Your task to perform on an android device: Open privacy settings Image 0: 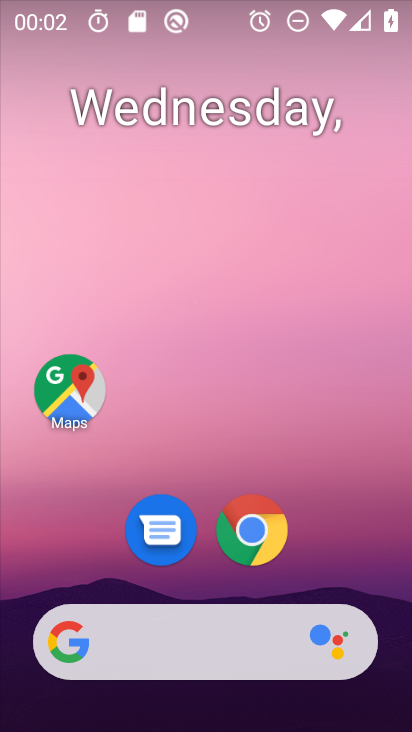
Step 0: drag from (376, 548) to (322, 155)
Your task to perform on an android device: Open privacy settings Image 1: 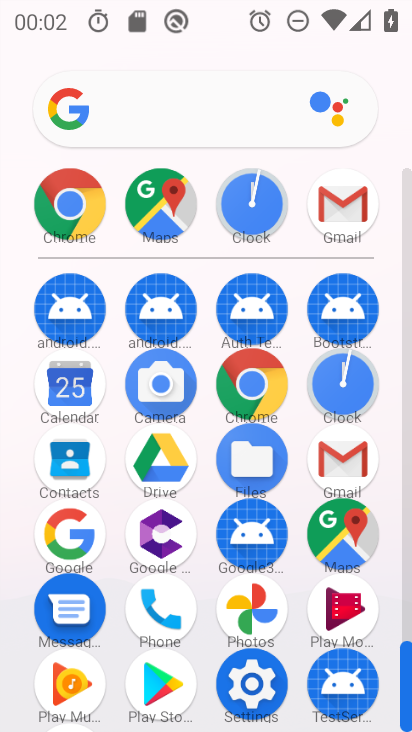
Step 1: click (255, 674)
Your task to perform on an android device: Open privacy settings Image 2: 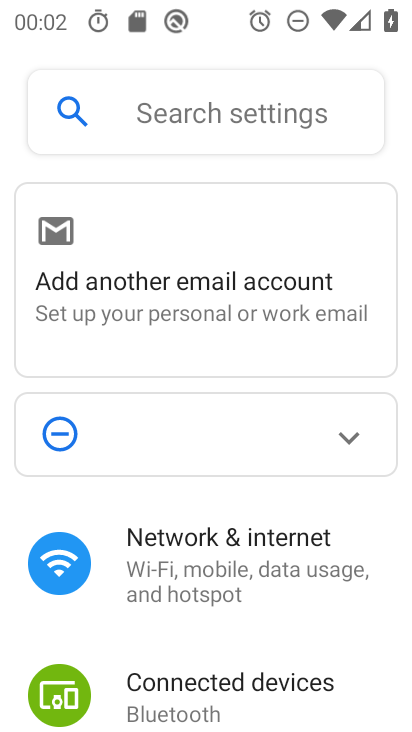
Step 2: drag from (288, 601) to (290, 28)
Your task to perform on an android device: Open privacy settings Image 3: 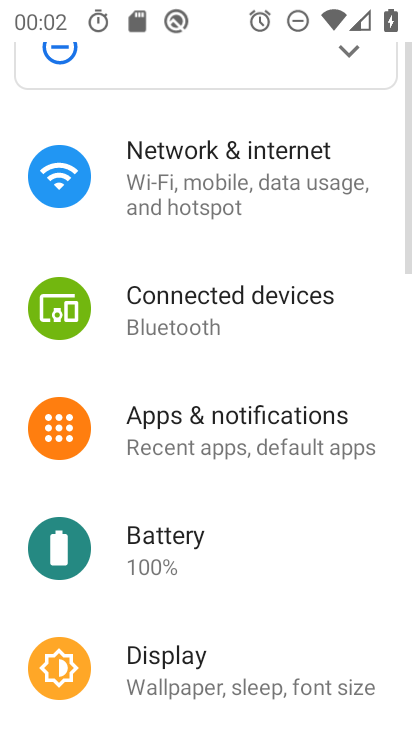
Step 3: drag from (240, 588) to (287, 5)
Your task to perform on an android device: Open privacy settings Image 4: 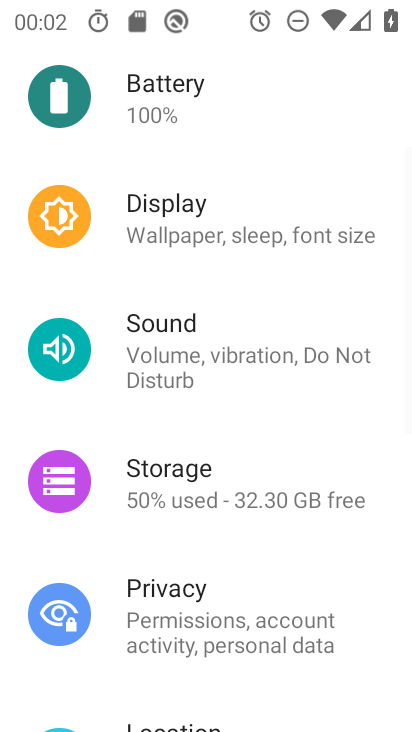
Step 4: drag from (229, 454) to (282, 63)
Your task to perform on an android device: Open privacy settings Image 5: 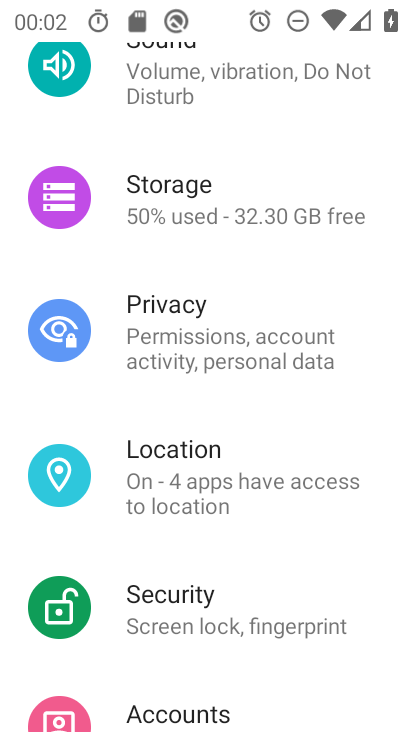
Step 5: click (214, 351)
Your task to perform on an android device: Open privacy settings Image 6: 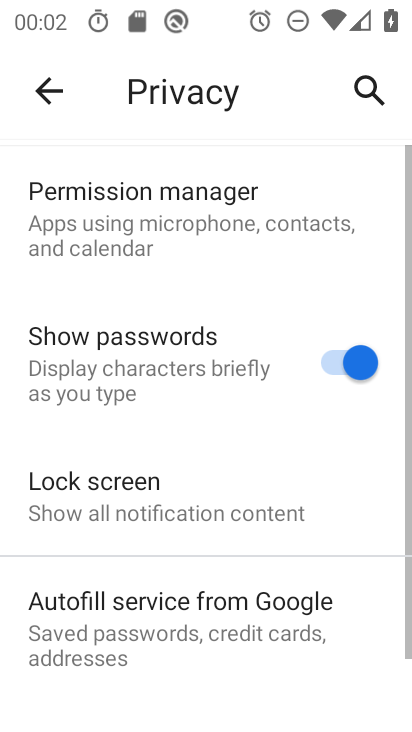
Step 6: drag from (181, 552) to (272, 131)
Your task to perform on an android device: Open privacy settings Image 7: 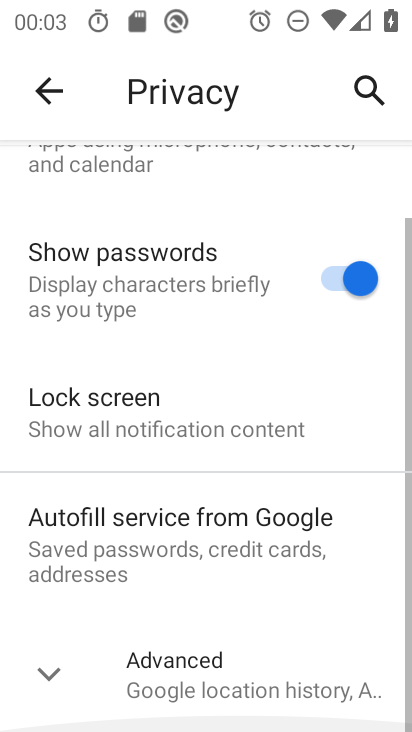
Step 7: click (237, 220)
Your task to perform on an android device: Open privacy settings Image 8: 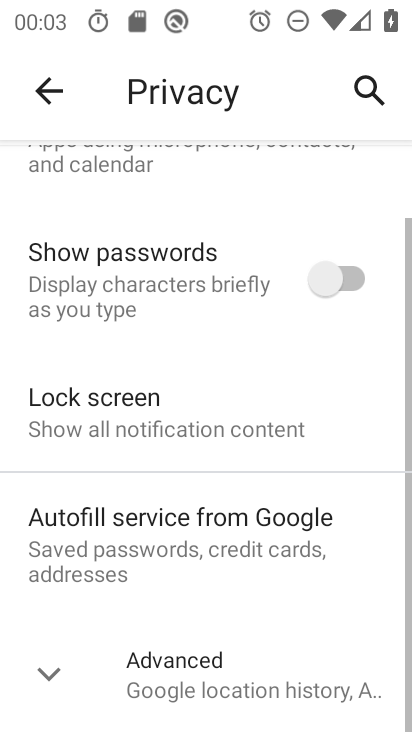
Step 8: task complete